Your task to perform on an android device: Open the map Image 0: 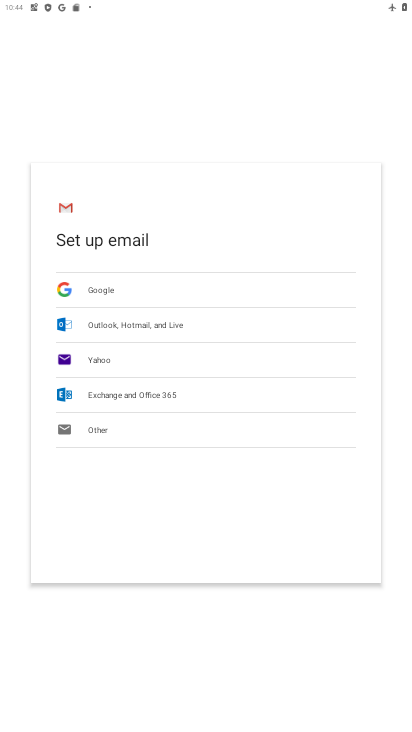
Step 0: press home button
Your task to perform on an android device: Open the map Image 1: 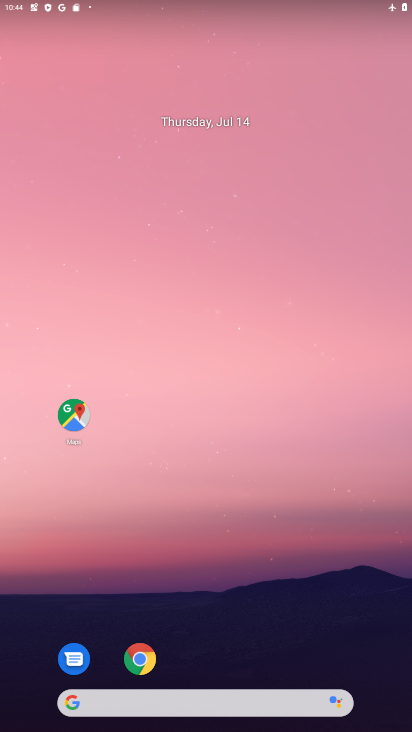
Step 1: click (71, 420)
Your task to perform on an android device: Open the map Image 2: 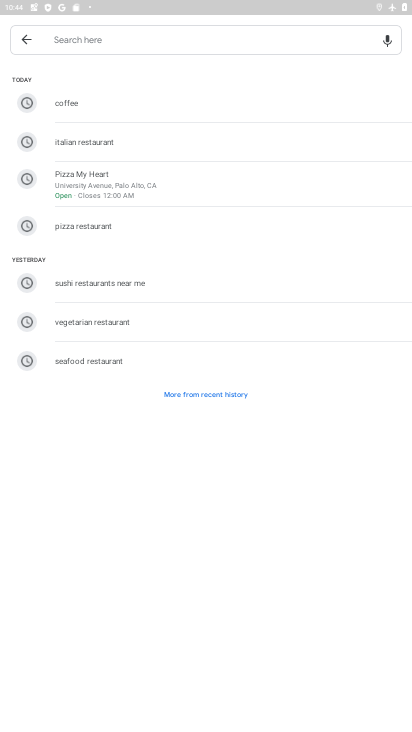
Step 2: task complete